Your task to perform on an android device: Search for sushi restaurants on Maps Image 0: 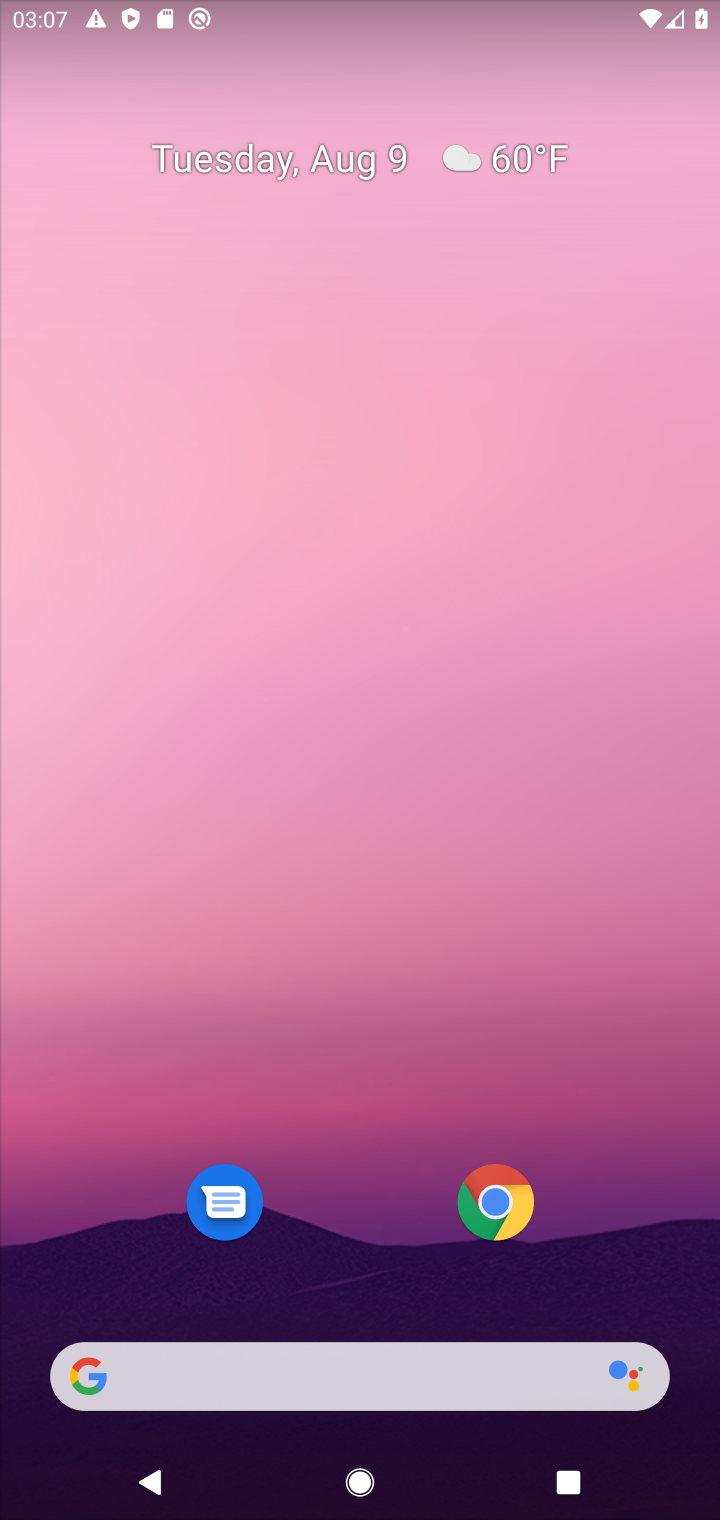
Step 0: press home button
Your task to perform on an android device: Search for sushi restaurants on Maps Image 1: 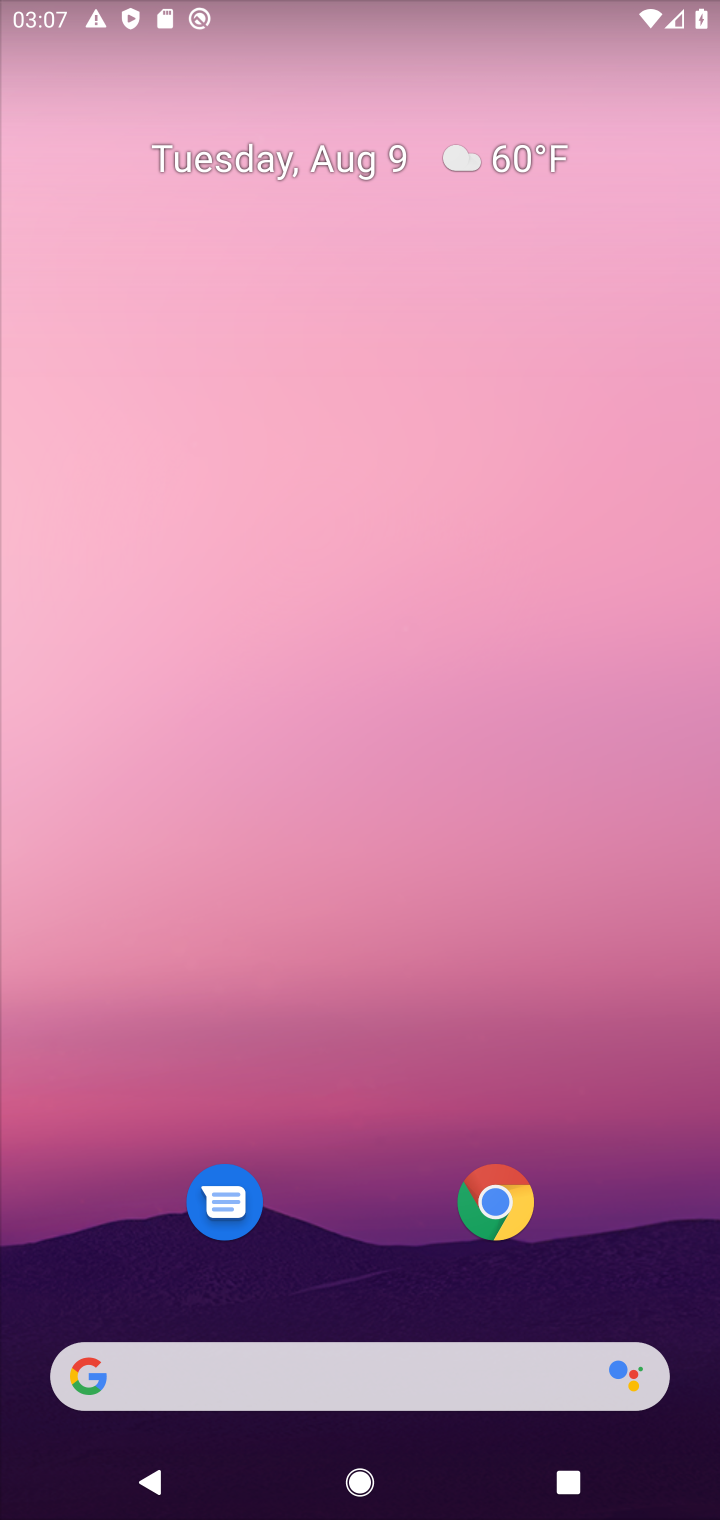
Step 1: drag from (313, 612) to (315, 543)
Your task to perform on an android device: Search for sushi restaurants on Maps Image 2: 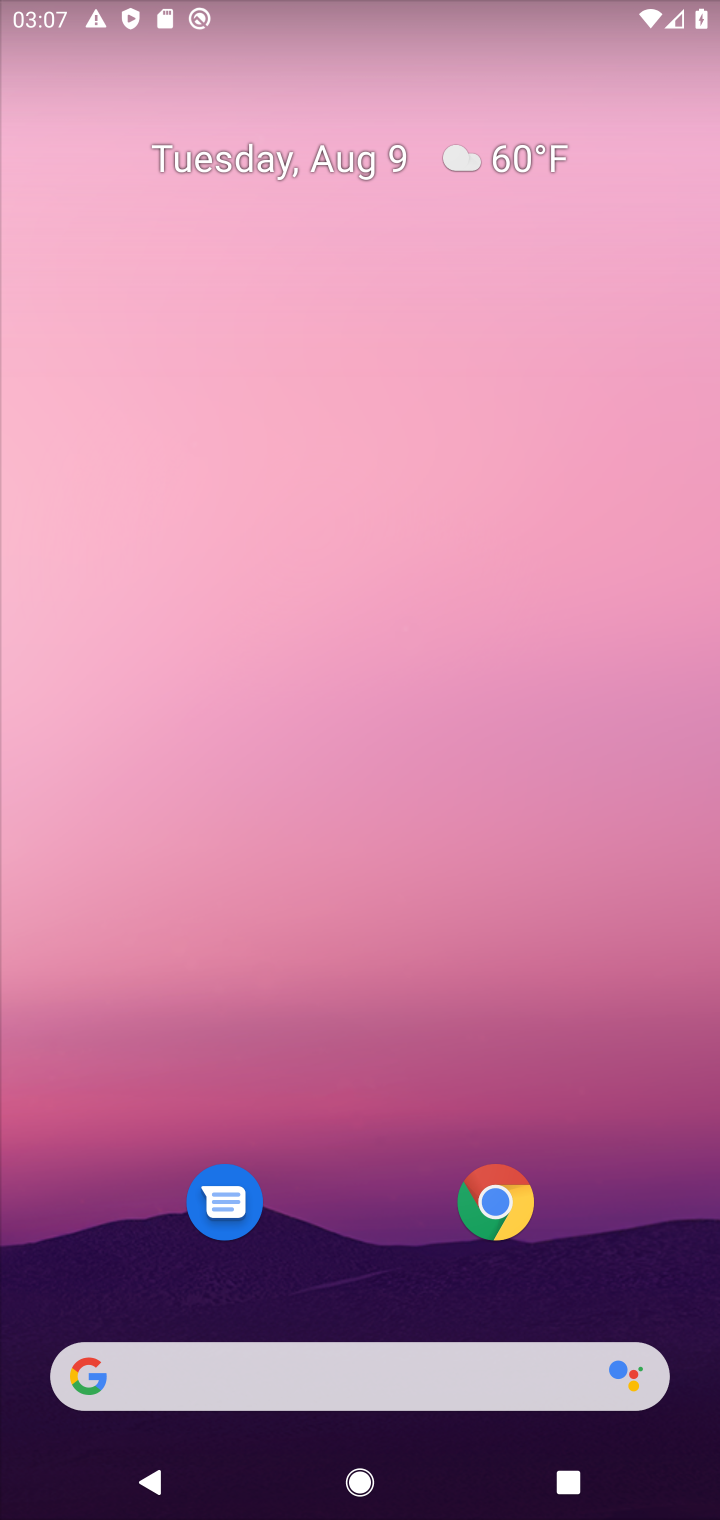
Step 2: drag from (398, 1332) to (377, 174)
Your task to perform on an android device: Search for sushi restaurants on Maps Image 3: 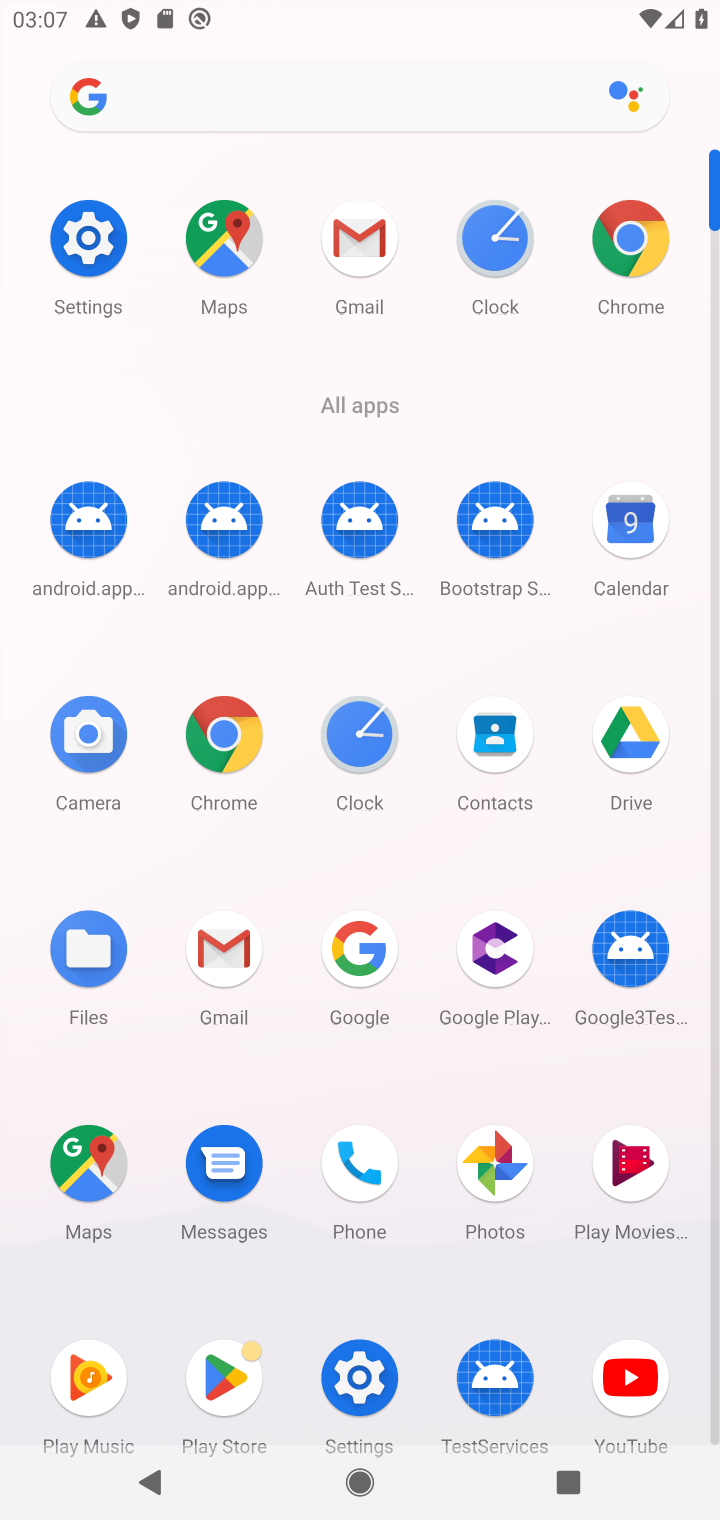
Step 3: click (213, 220)
Your task to perform on an android device: Search for sushi restaurants on Maps Image 4: 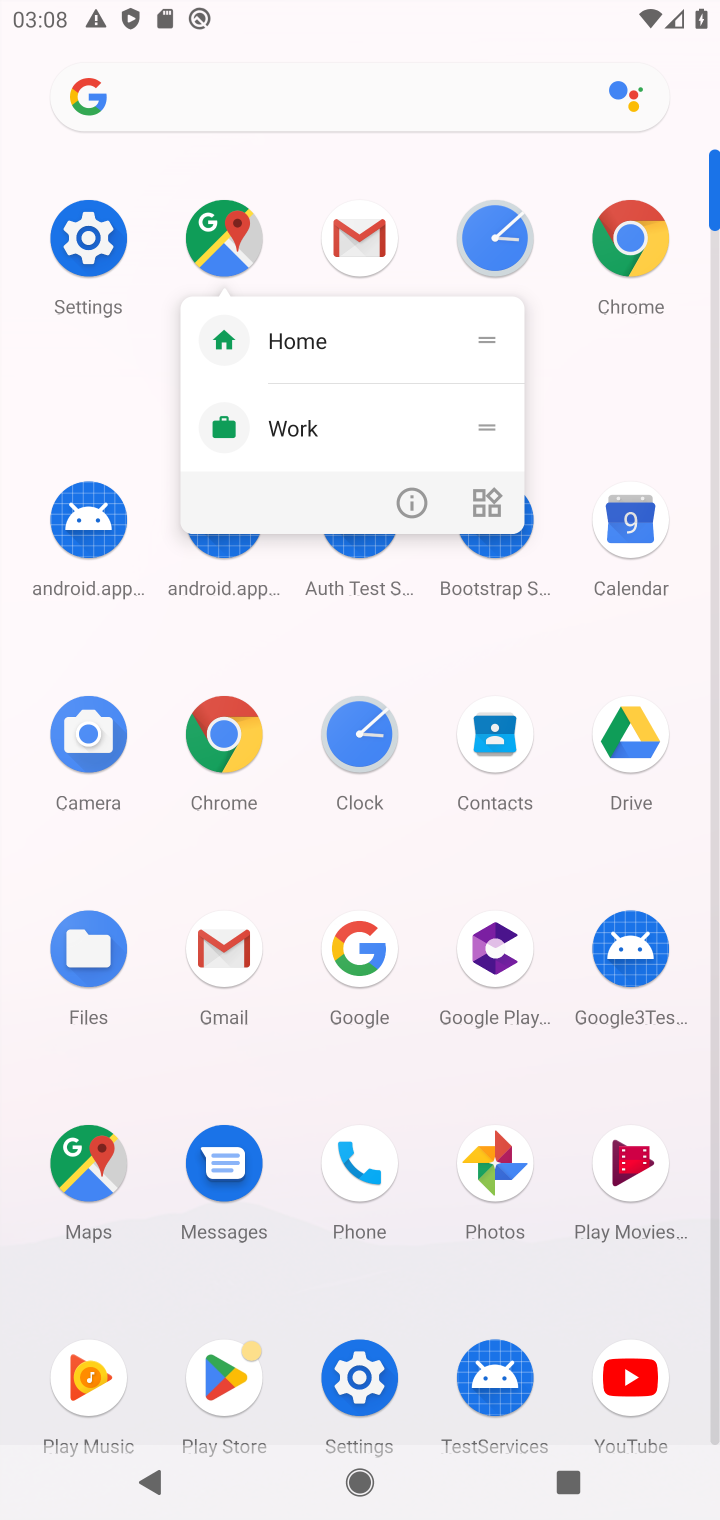
Step 4: click (213, 220)
Your task to perform on an android device: Search for sushi restaurants on Maps Image 5: 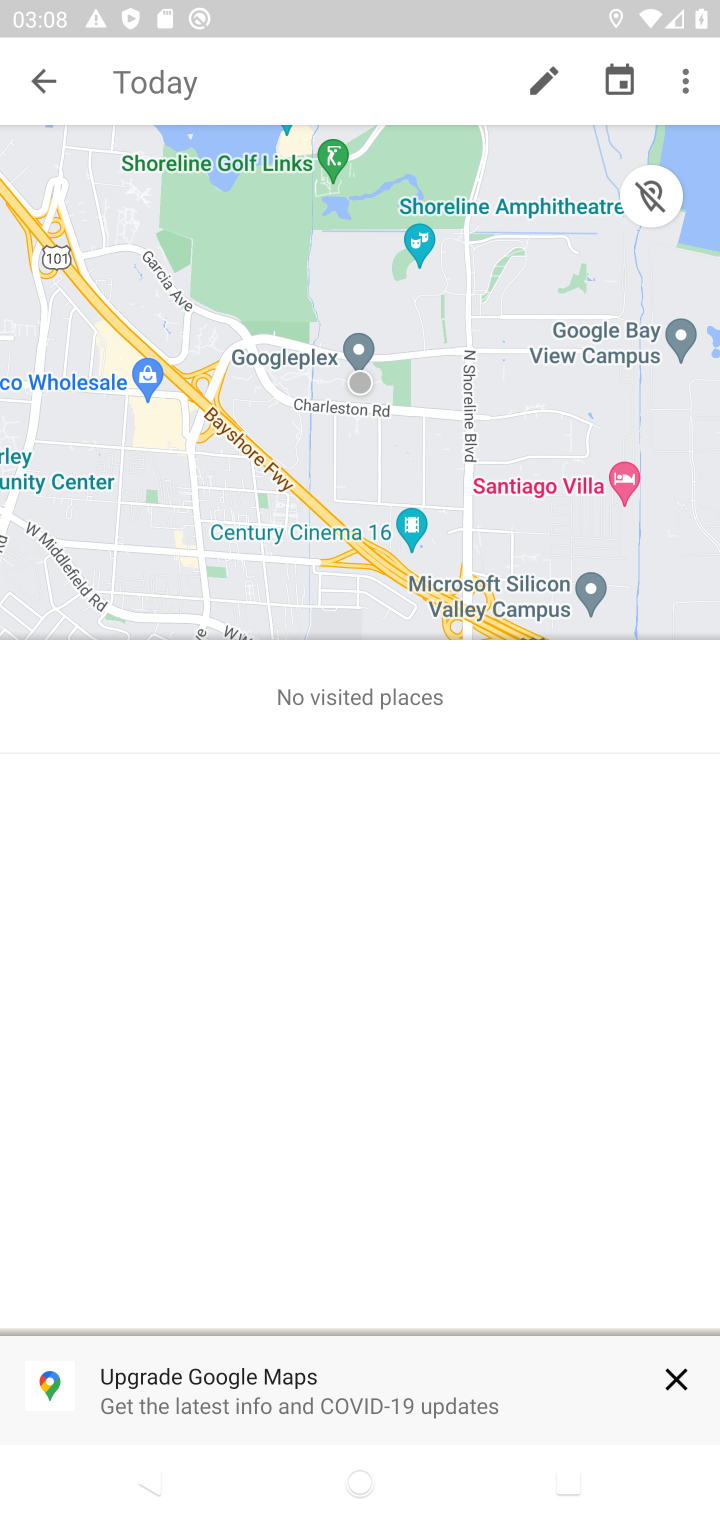
Step 5: click (41, 52)
Your task to perform on an android device: Search for sushi restaurants on Maps Image 6: 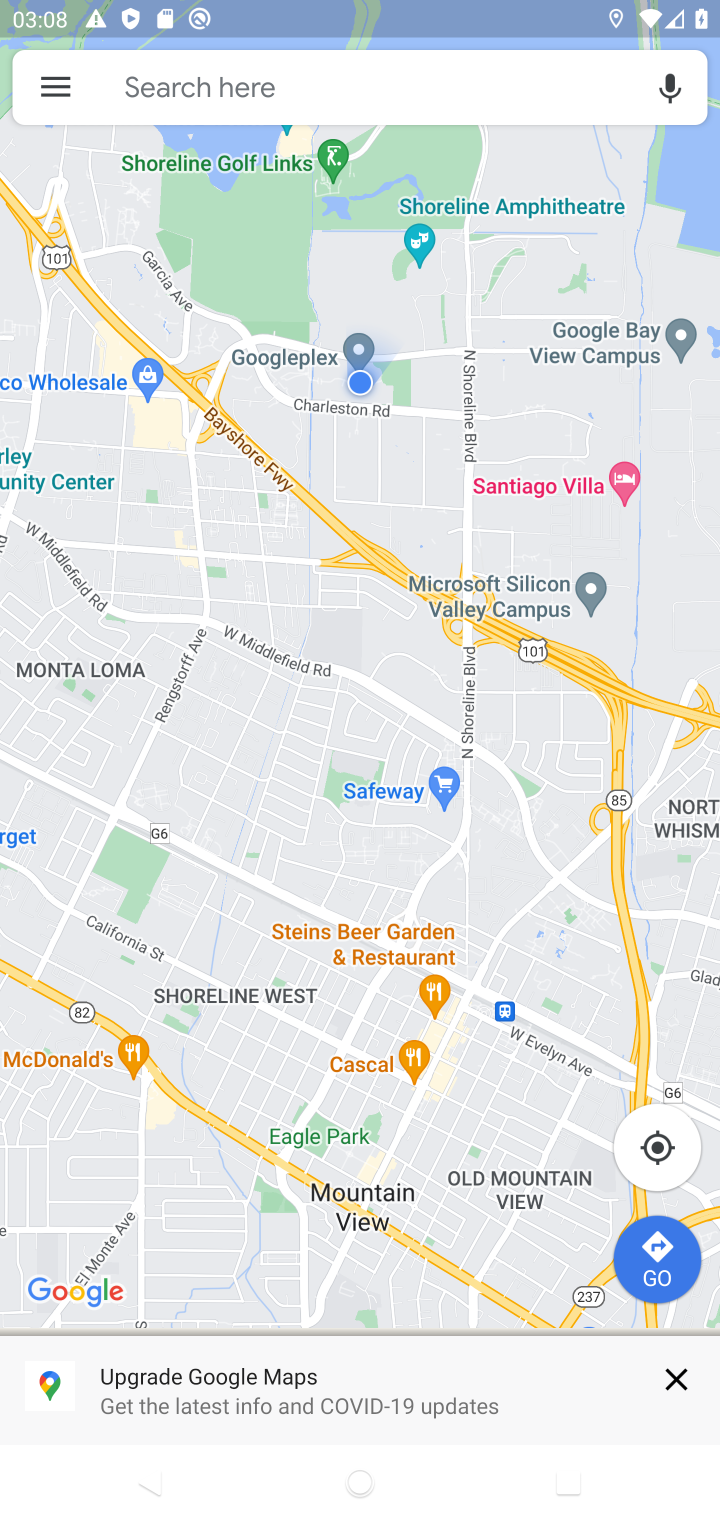
Step 6: click (244, 87)
Your task to perform on an android device: Search for sushi restaurants on Maps Image 7: 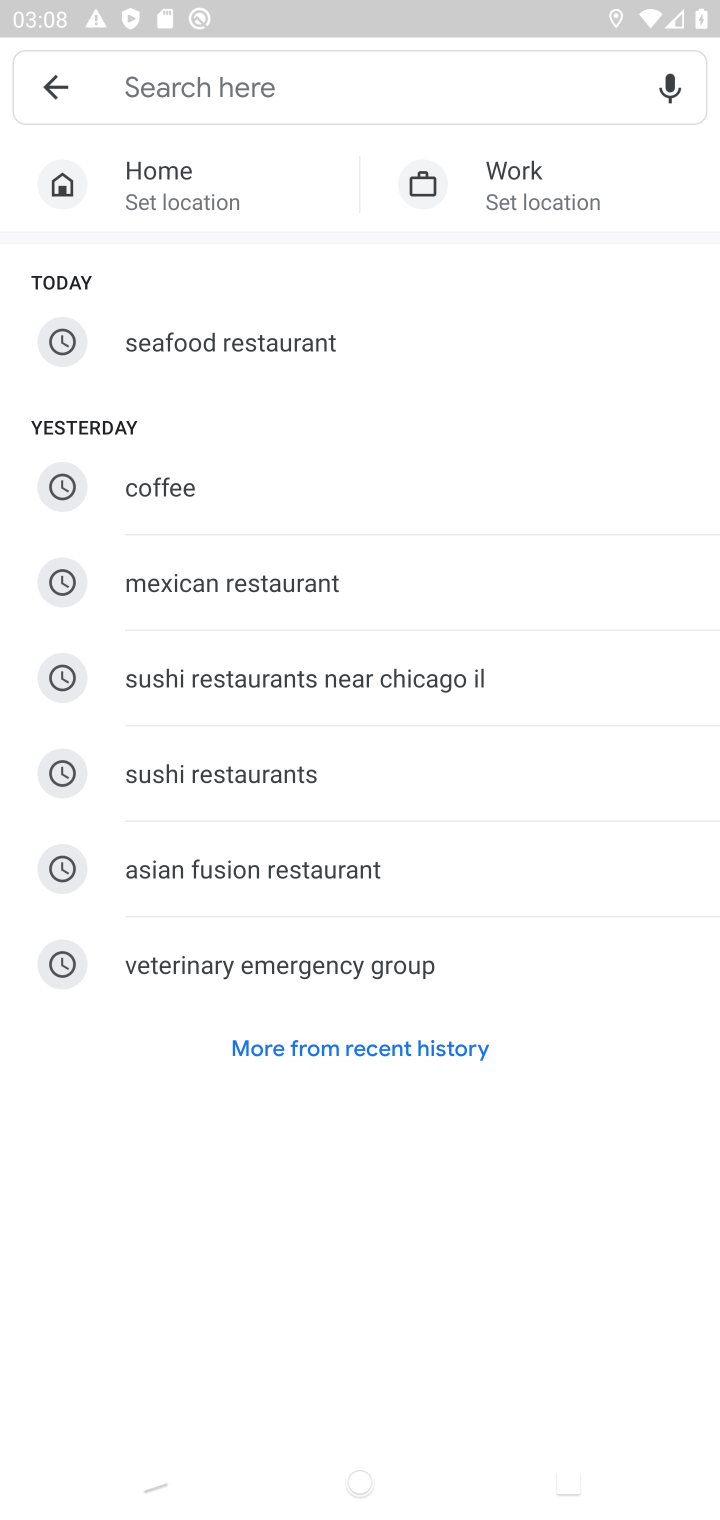
Step 7: type "sushi restaurants"
Your task to perform on an android device: Search for sushi restaurants on Maps Image 8: 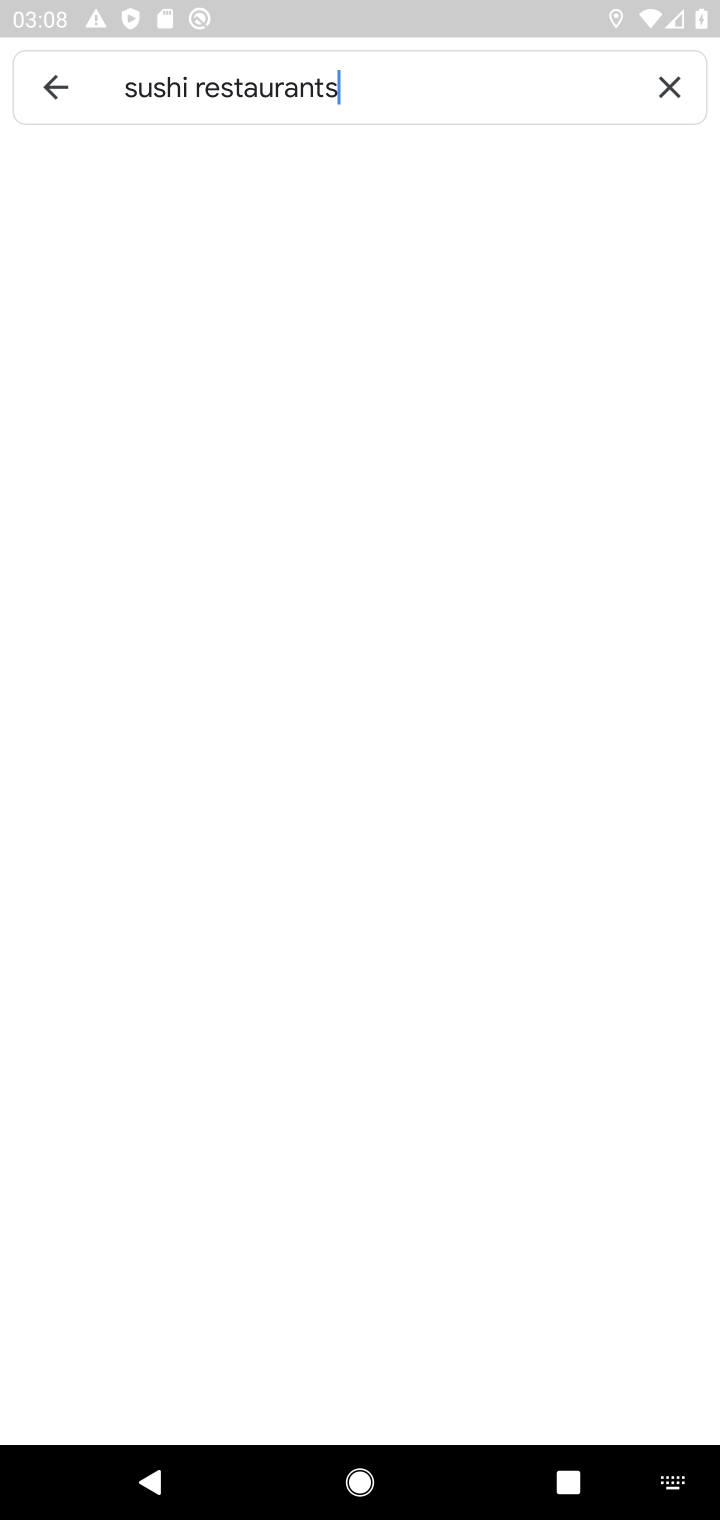
Step 8: type ""
Your task to perform on an android device: Search for sushi restaurants on Maps Image 9: 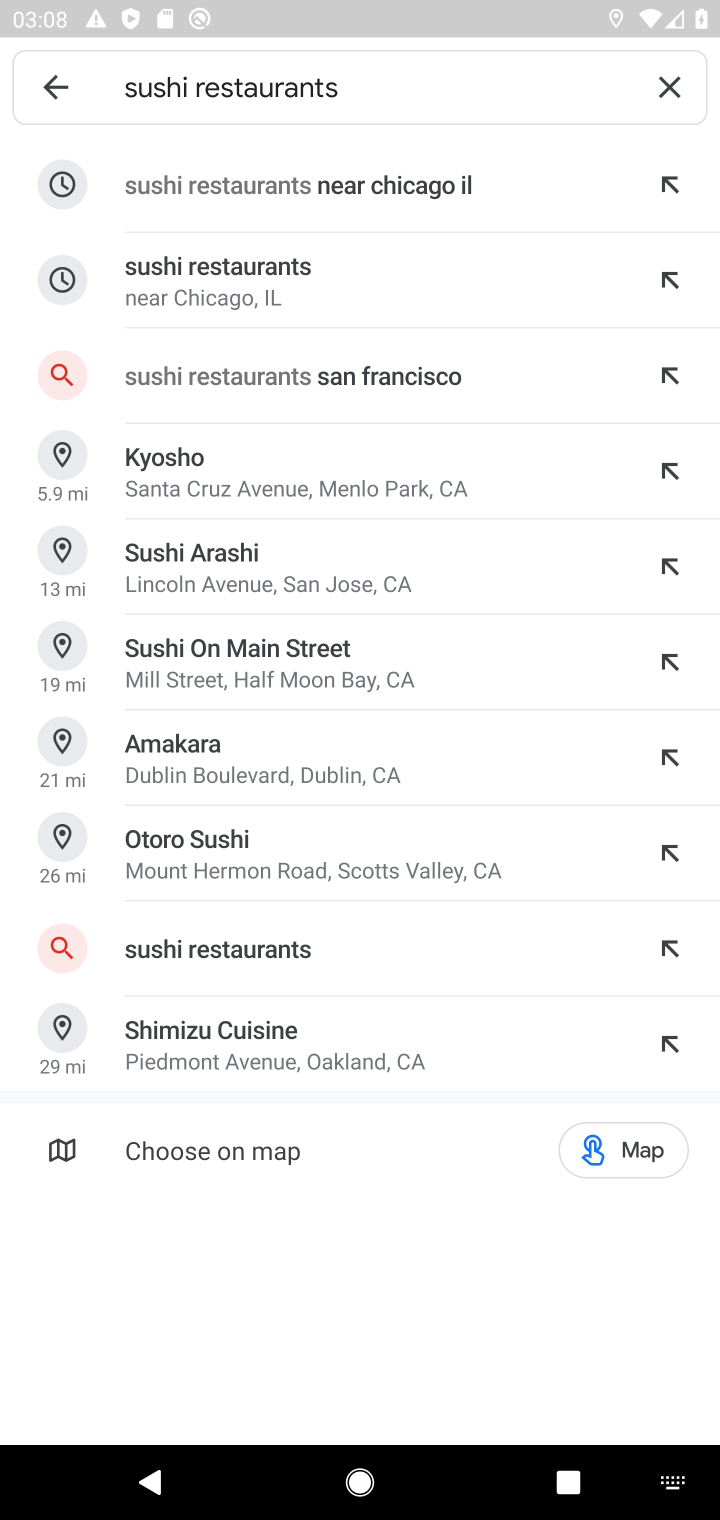
Step 9: click (215, 185)
Your task to perform on an android device: Search for sushi restaurants on Maps Image 10: 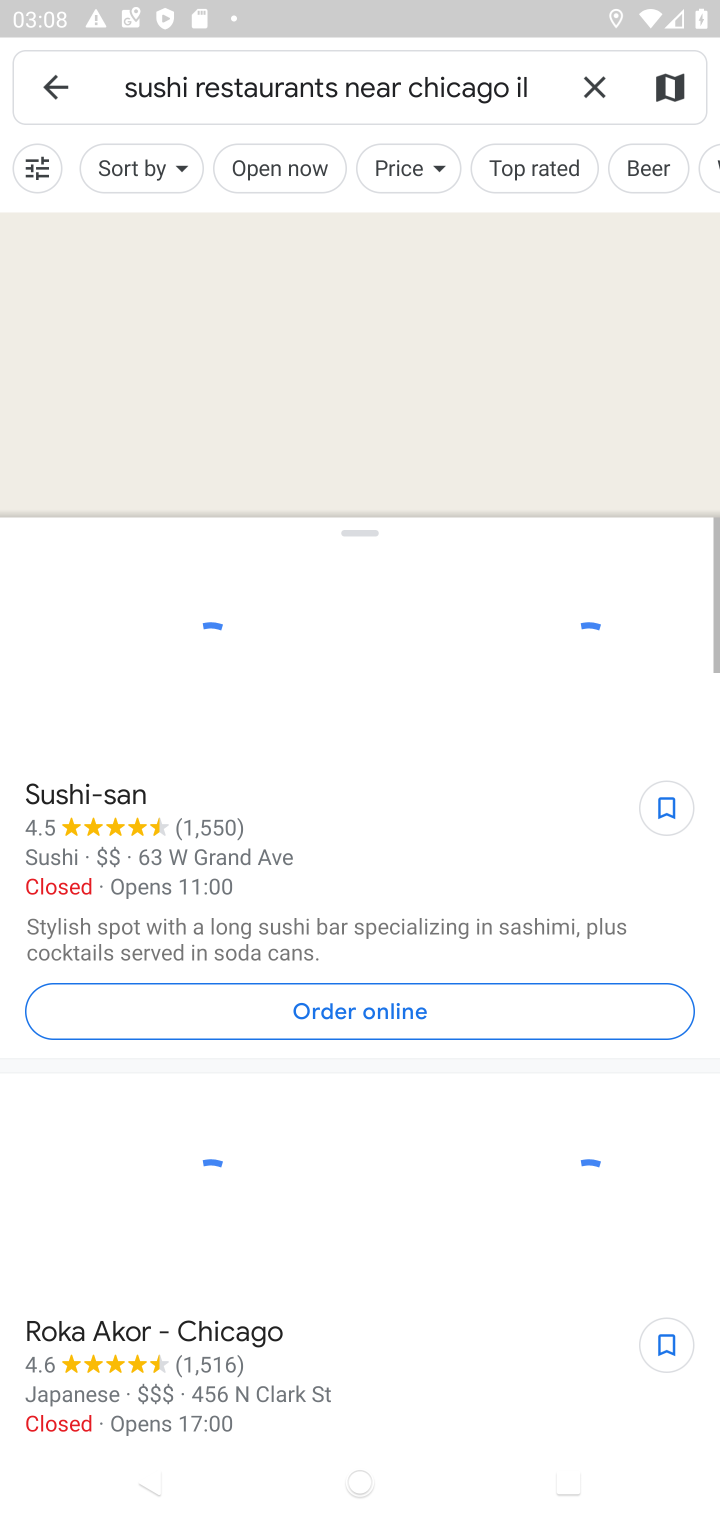
Step 10: task complete